Your task to perform on an android device: search for starred emails in the gmail app Image 0: 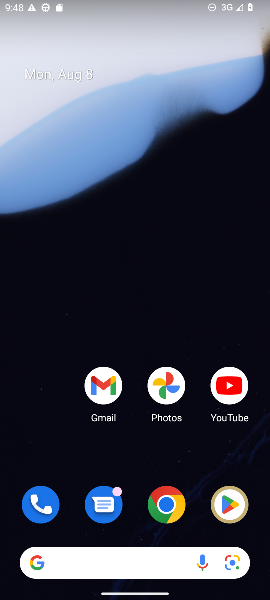
Step 0: click (106, 409)
Your task to perform on an android device: search for starred emails in the gmail app Image 1: 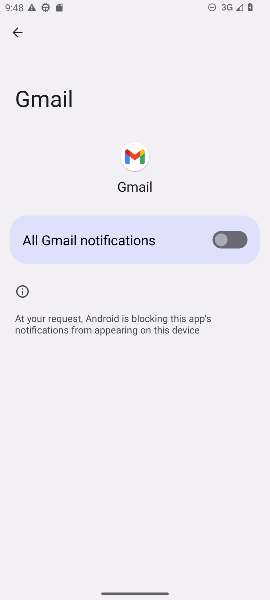
Step 1: click (14, 32)
Your task to perform on an android device: search for starred emails in the gmail app Image 2: 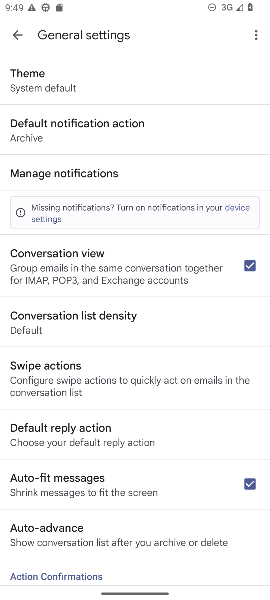
Step 2: click (11, 29)
Your task to perform on an android device: search for starred emails in the gmail app Image 3: 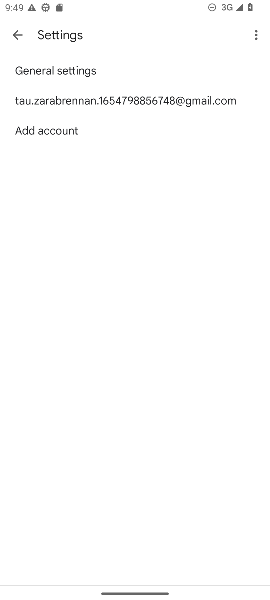
Step 3: click (21, 27)
Your task to perform on an android device: search for starred emails in the gmail app Image 4: 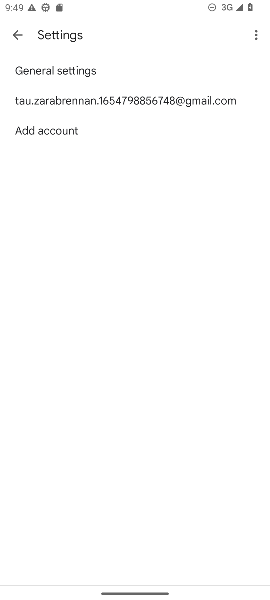
Step 4: click (12, 24)
Your task to perform on an android device: search for starred emails in the gmail app Image 5: 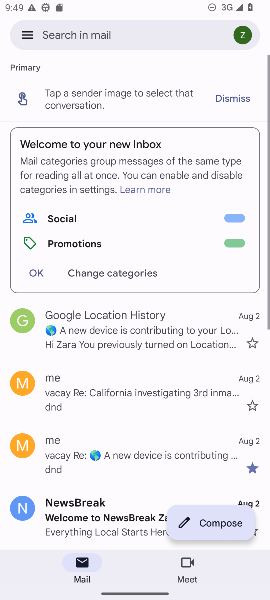
Step 5: click (30, 29)
Your task to perform on an android device: search for starred emails in the gmail app Image 6: 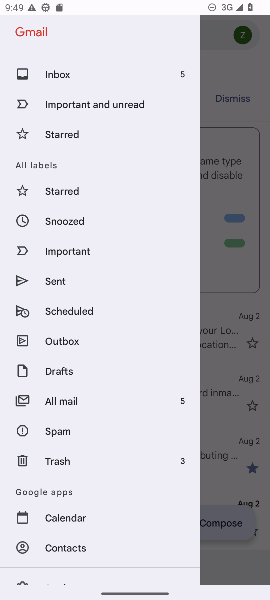
Step 6: click (73, 143)
Your task to perform on an android device: search for starred emails in the gmail app Image 7: 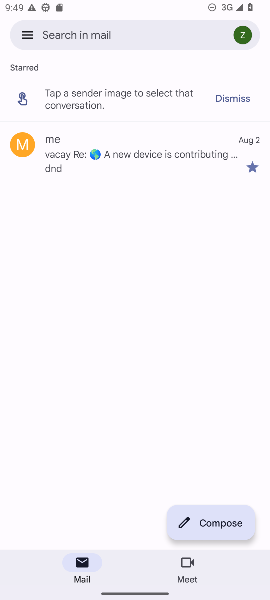
Step 7: task complete